Your task to perform on an android device: Open battery settings Image 0: 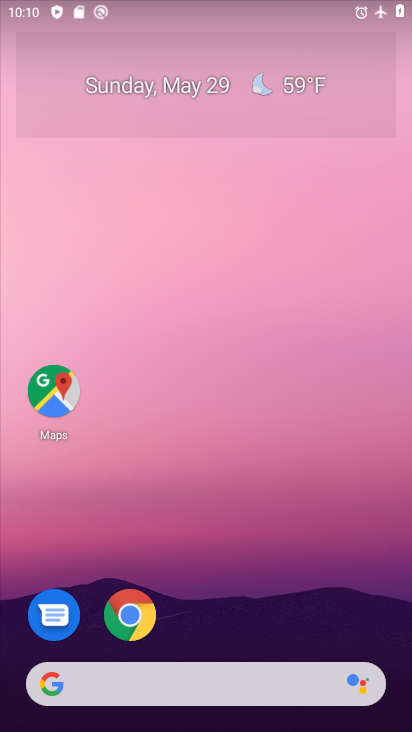
Step 0: drag from (227, 549) to (236, 37)
Your task to perform on an android device: Open battery settings Image 1: 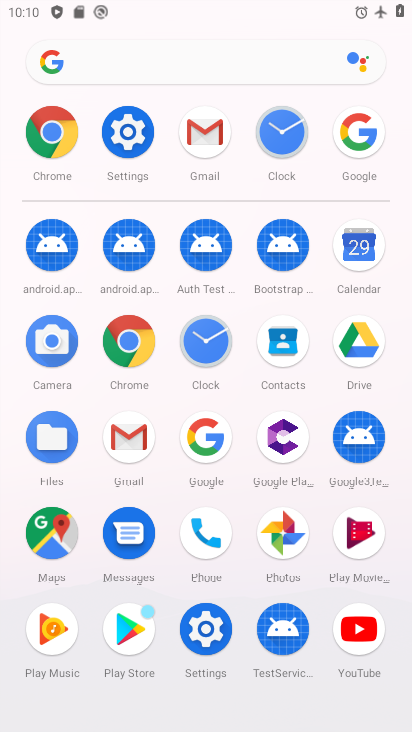
Step 1: click (130, 131)
Your task to perform on an android device: Open battery settings Image 2: 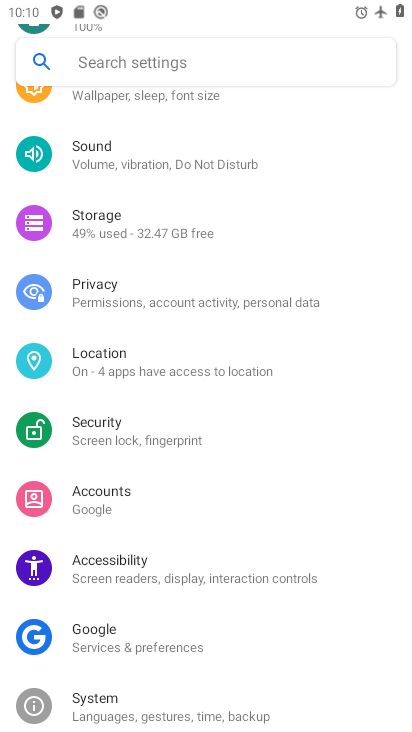
Step 2: drag from (112, 177) to (187, 538)
Your task to perform on an android device: Open battery settings Image 3: 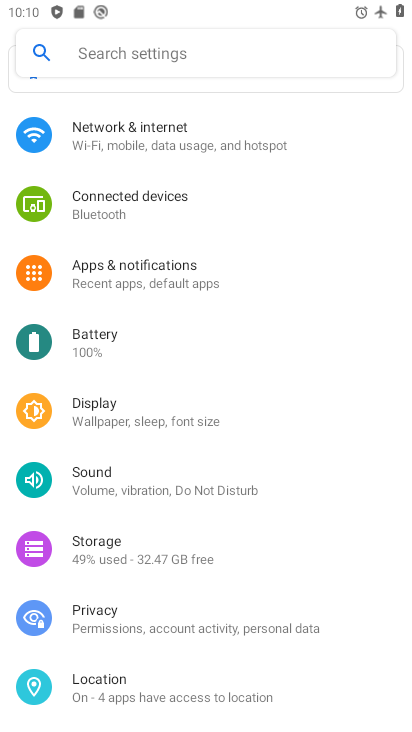
Step 3: click (92, 340)
Your task to perform on an android device: Open battery settings Image 4: 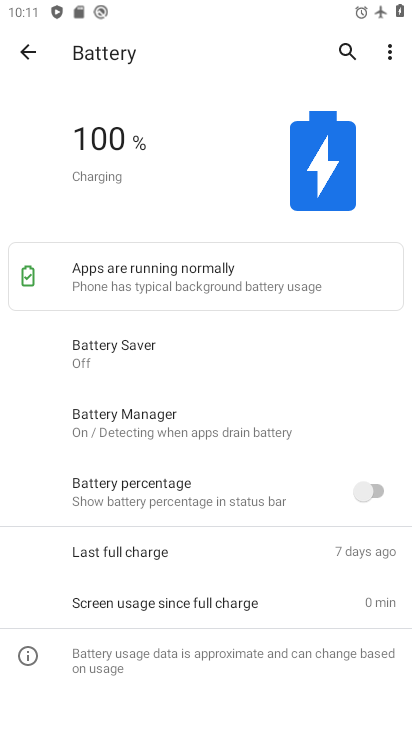
Step 4: task complete